Your task to perform on an android device: Search for pizza restaurants on Maps Image 0: 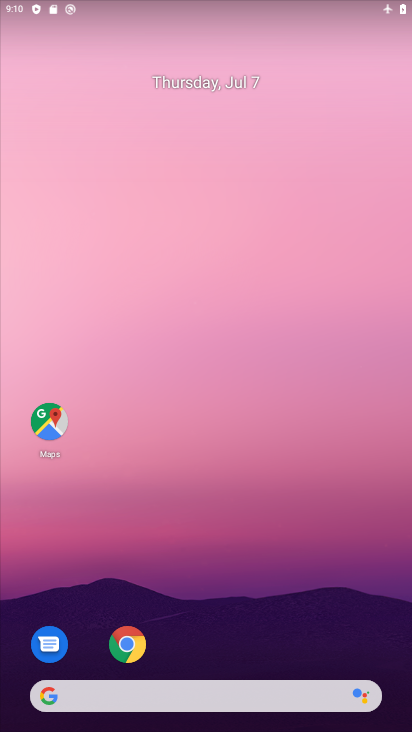
Step 0: click (43, 423)
Your task to perform on an android device: Search for pizza restaurants on Maps Image 1: 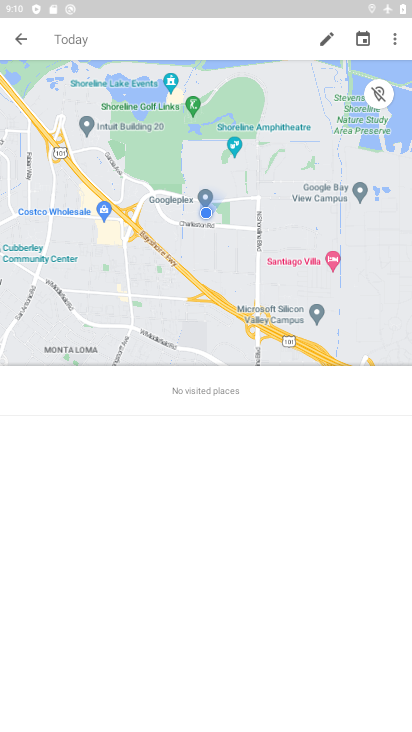
Step 1: click (27, 37)
Your task to perform on an android device: Search for pizza restaurants on Maps Image 2: 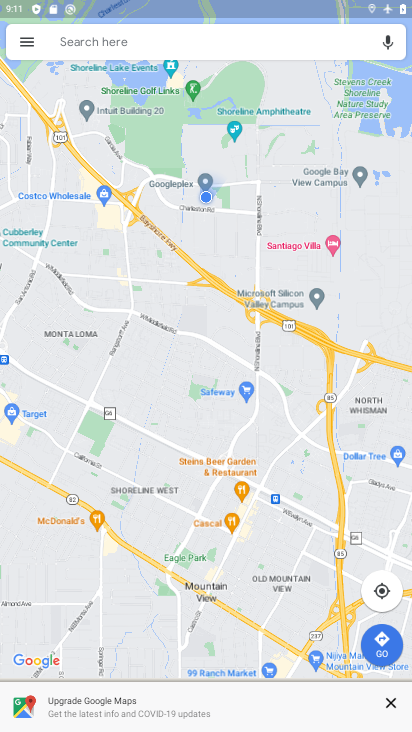
Step 2: click (140, 49)
Your task to perform on an android device: Search for pizza restaurants on Maps Image 3: 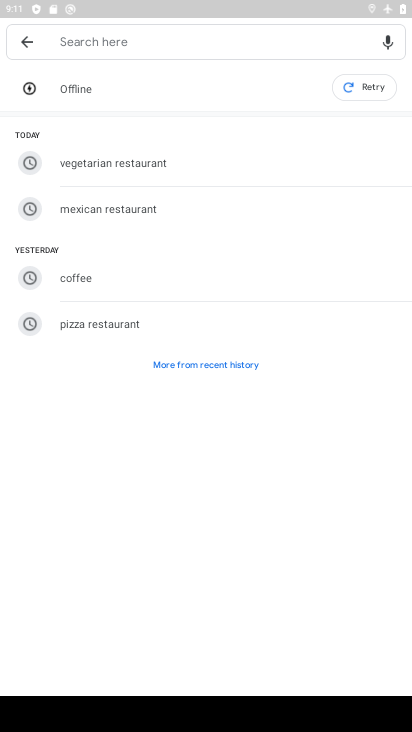
Step 3: type "pizza restaurants"
Your task to perform on an android device: Search for pizza restaurants on Maps Image 4: 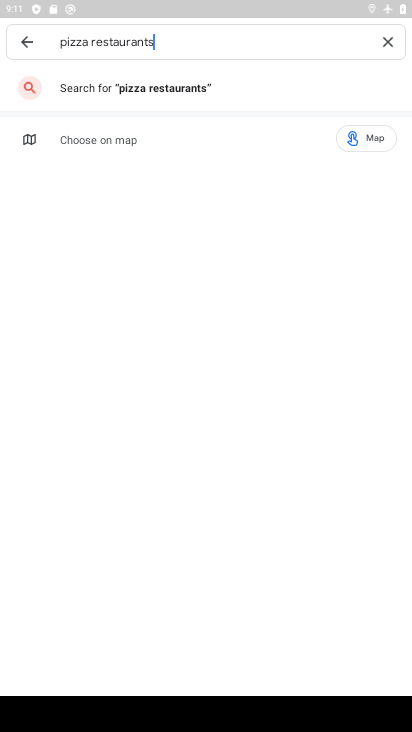
Step 4: press enter
Your task to perform on an android device: Search for pizza restaurants on Maps Image 5: 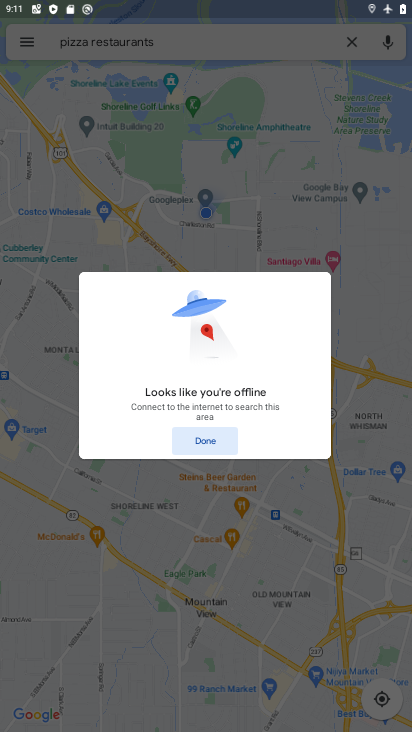
Step 5: task complete